Your task to perform on an android device: turn on sleep mode Image 0: 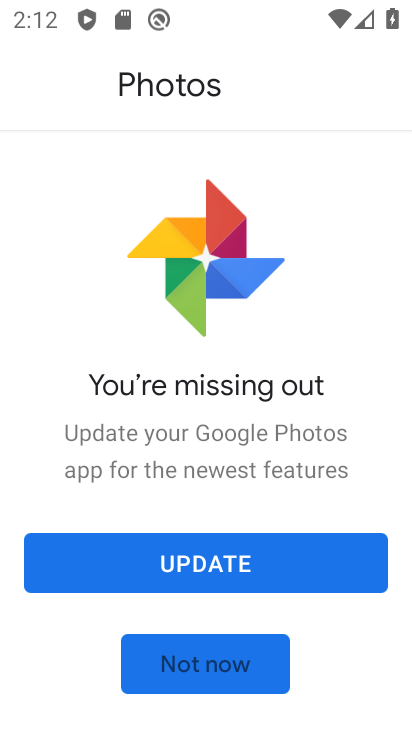
Step 0: click (215, 661)
Your task to perform on an android device: turn on sleep mode Image 1: 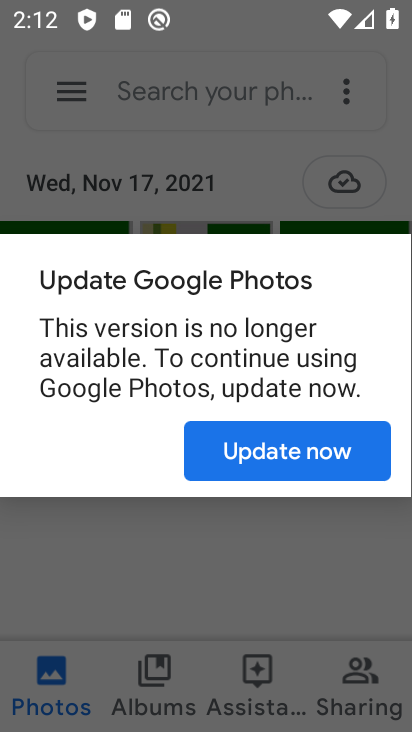
Step 1: click (288, 170)
Your task to perform on an android device: turn on sleep mode Image 2: 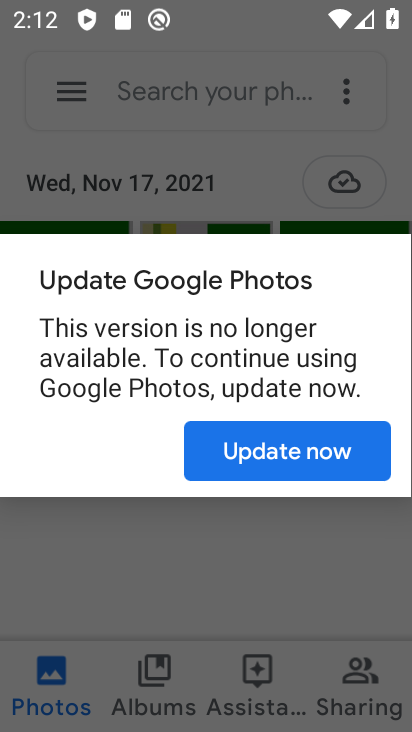
Step 2: click (290, 468)
Your task to perform on an android device: turn on sleep mode Image 3: 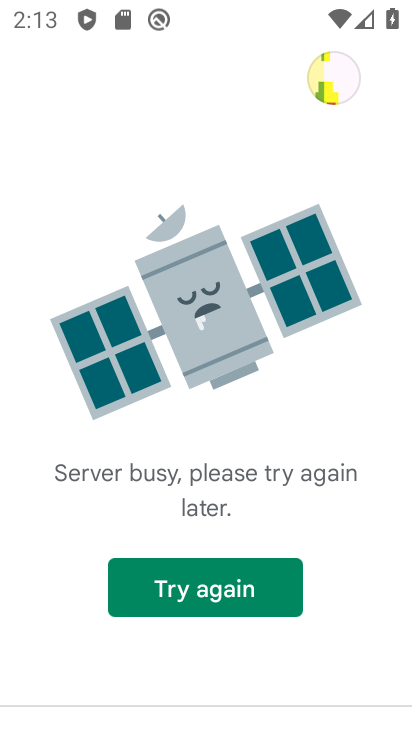
Step 3: press home button
Your task to perform on an android device: turn on sleep mode Image 4: 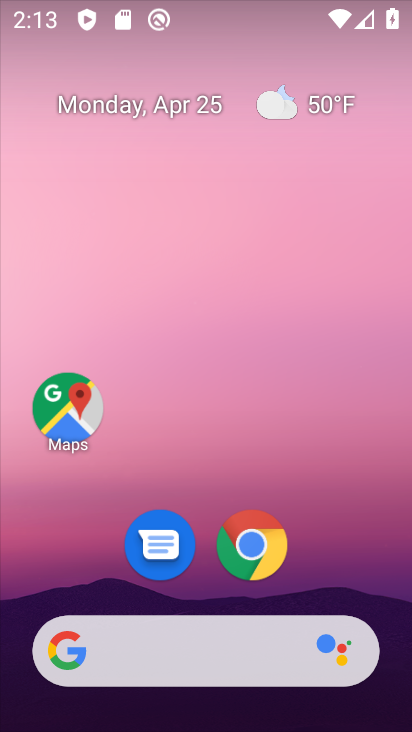
Step 4: drag from (213, 443) to (207, 15)
Your task to perform on an android device: turn on sleep mode Image 5: 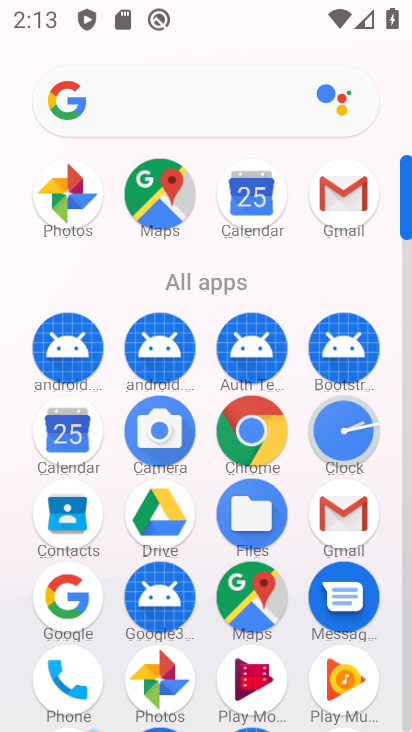
Step 5: drag from (206, 563) to (205, 246)
Your task to perform on an android device: turn on sleep mode Image 6: 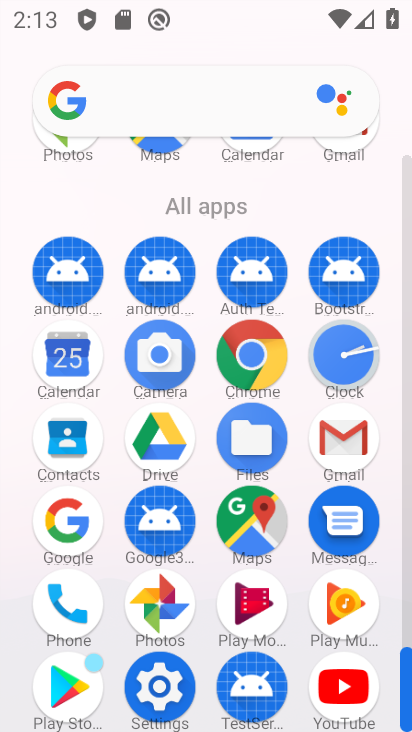
Step 6: click (161, 683)
Your task to perform on an android device: turn on sleep mode Image 7: 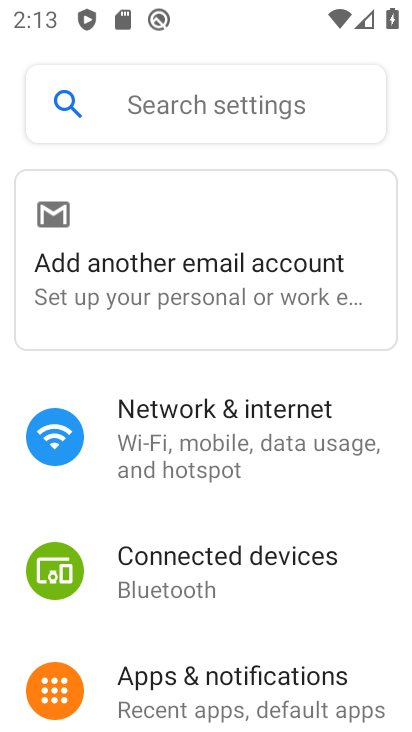
Step 7: drag from (256, 611) to (248, 226)
Your task to perform on an android device: turn on sleep mode Image 8: 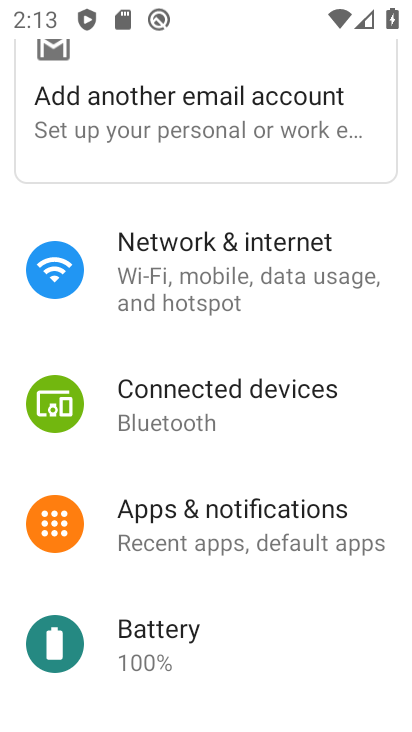
Step 8: drag from (249, 637) to (274, 189)
Your task to perform on an android device: turn on sleep mode Image 9: 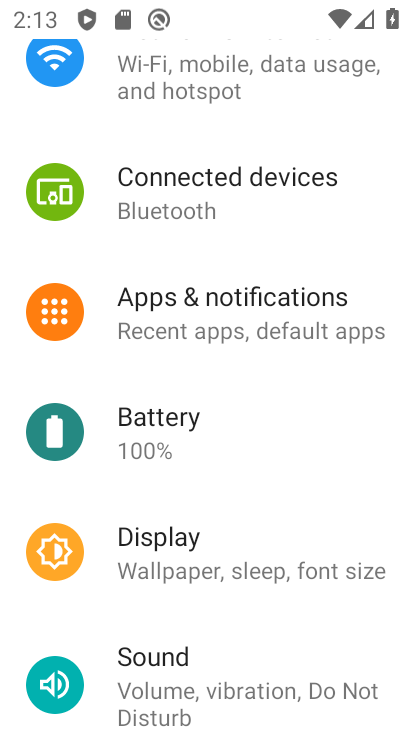
Step 9: click (264, 551)
Your task to perform on an android device: turn on sleep mode Image 10: 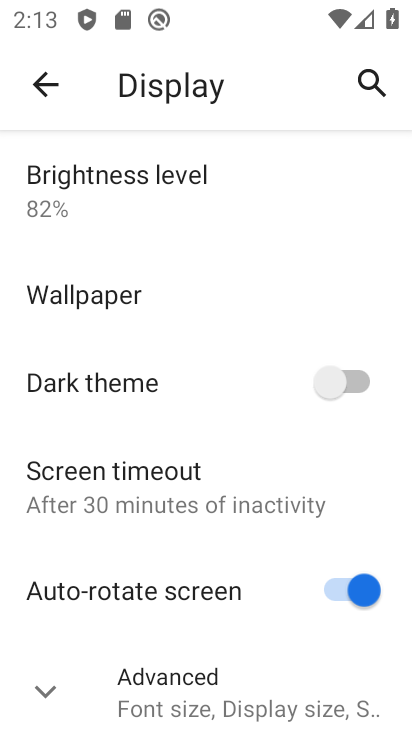
Step 10: task complete